Your task to perform on an android device: Clear the shopping cart on newegg.com. Add "energizer triple a" to the cart on newegg.com Image 0: 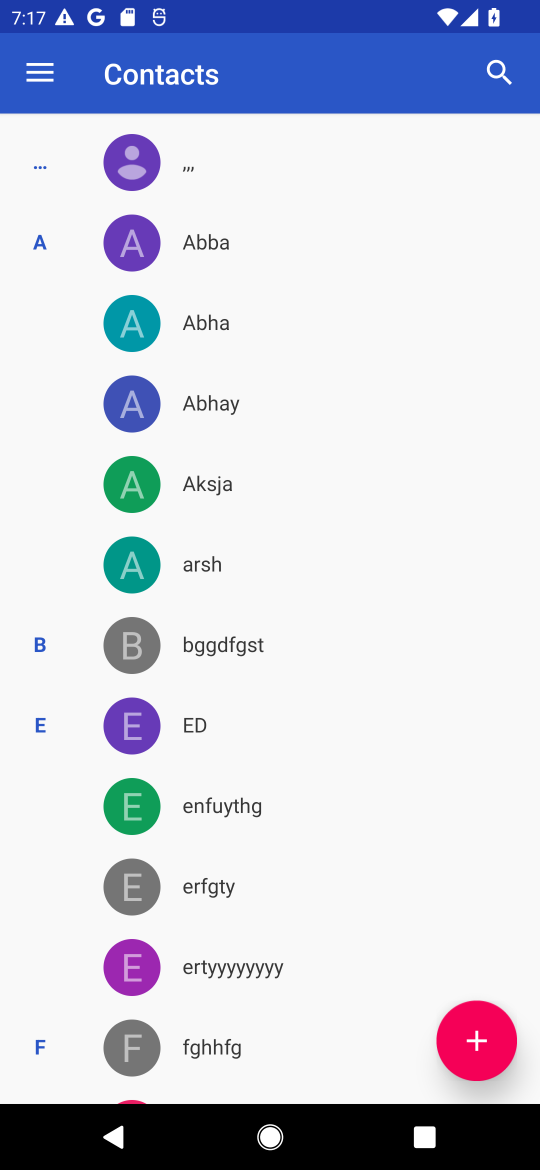
Step 0: press home button
Your task to perform on an android device: Clear the shopping cart on newegg.com. Add "energizer triple a" to the cart on newegg.com Image 1: 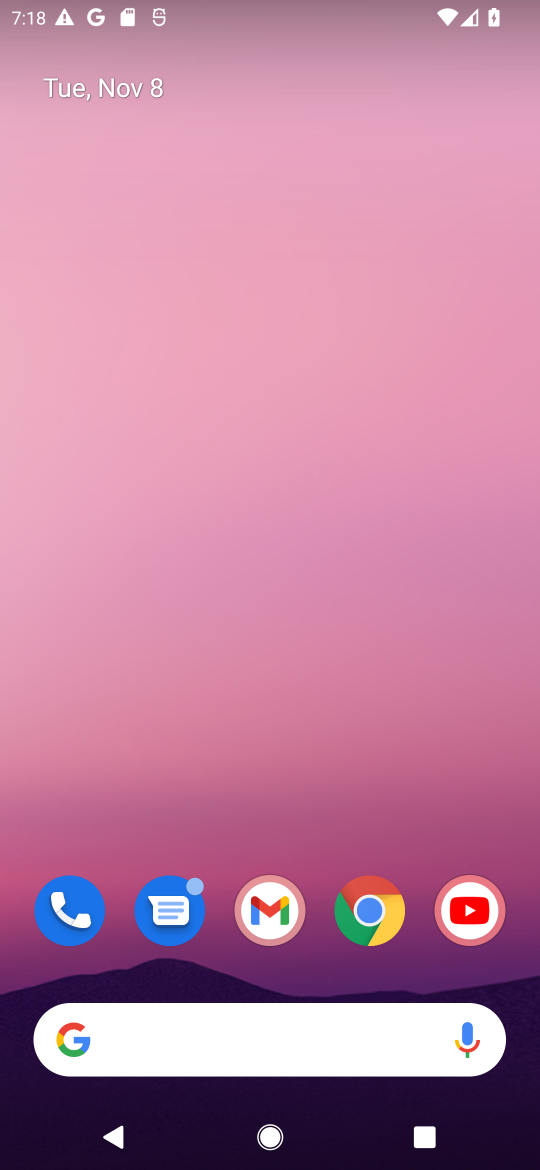
Step 1: click (370, 895)
Your task to perform on an android device: Clear the shopping cart on newegg.com. Add "energizer triple a" to the cart on newegg.com Image 2: 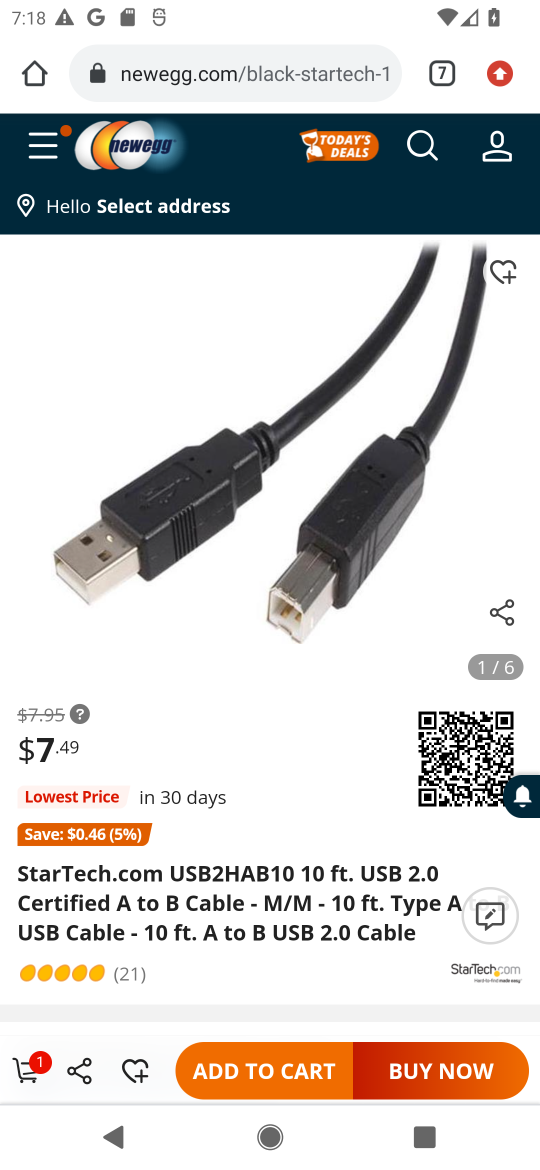
Step 2: click (428, 153)
Your task to perform on an android device: Clear the shopping cart on newegg.com. Add "energizer triple a" to the cart on newegg.com Image 3: 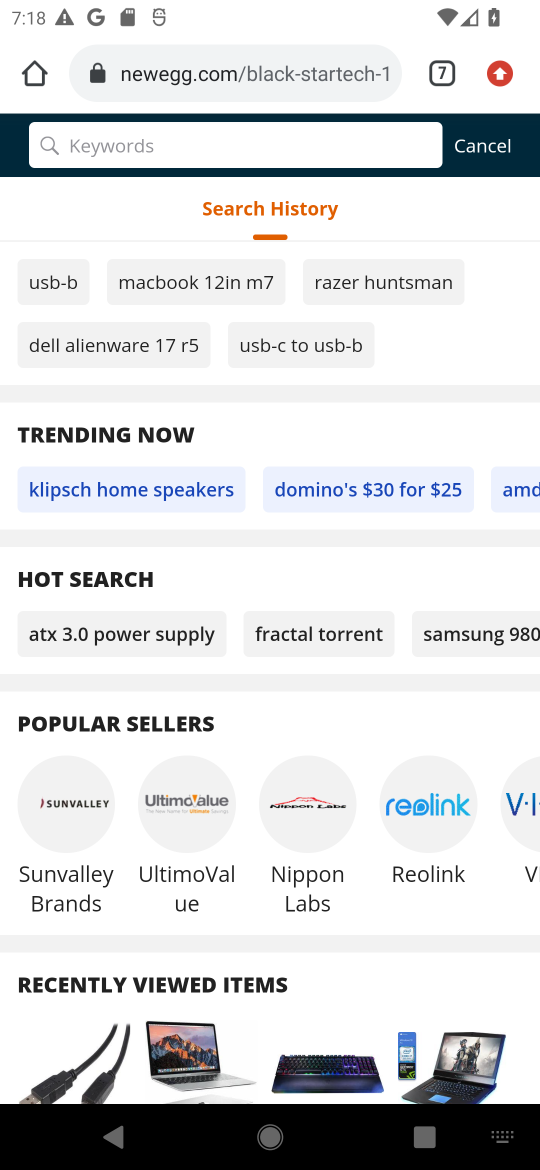
Step 3: type "energizer triple a"
Your task to perform on an android device: Clear the shopping cart on newegg.com. Add "energizer triple a" to the cart on newegg.com Image 4: 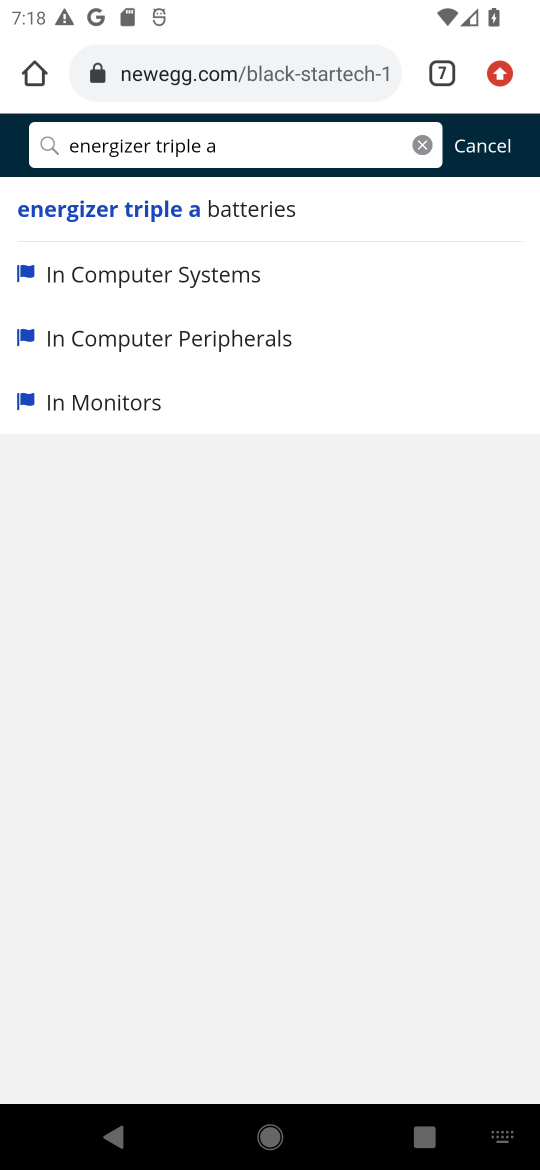
Step 4: click (267, 205)
Your task to perform on an android device: Clear the shopping cart on newegg.com. Add "energizer triple a" to the cart on newegg.com Image 5: 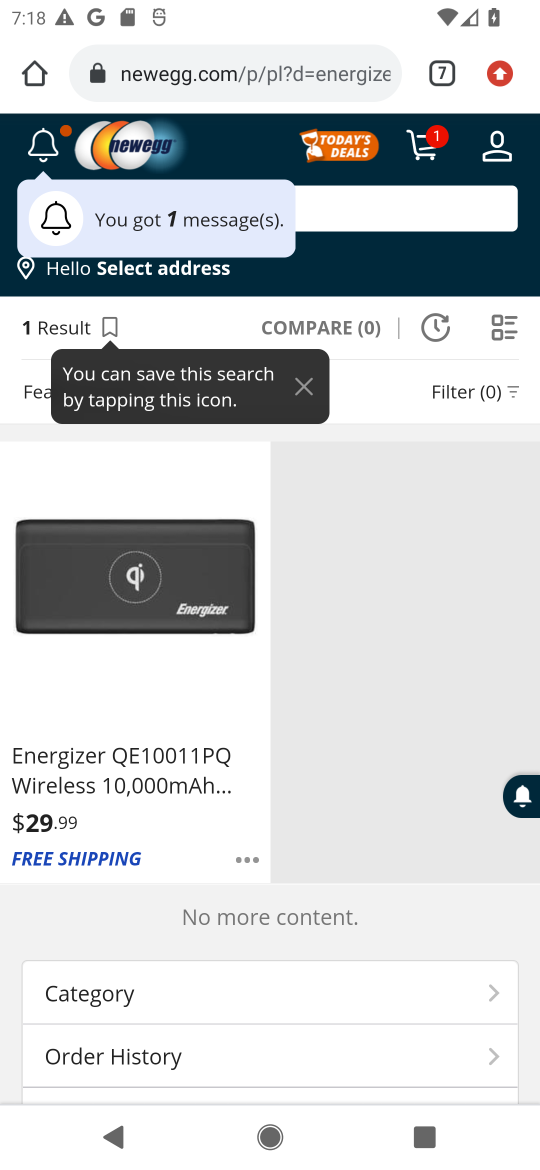
Step 5: click (93, 768)
Your task to perform on an android device: Clear the shopping cart on newegg.com. Add "energizer triple a" to the cart on newegg.com Image 6: 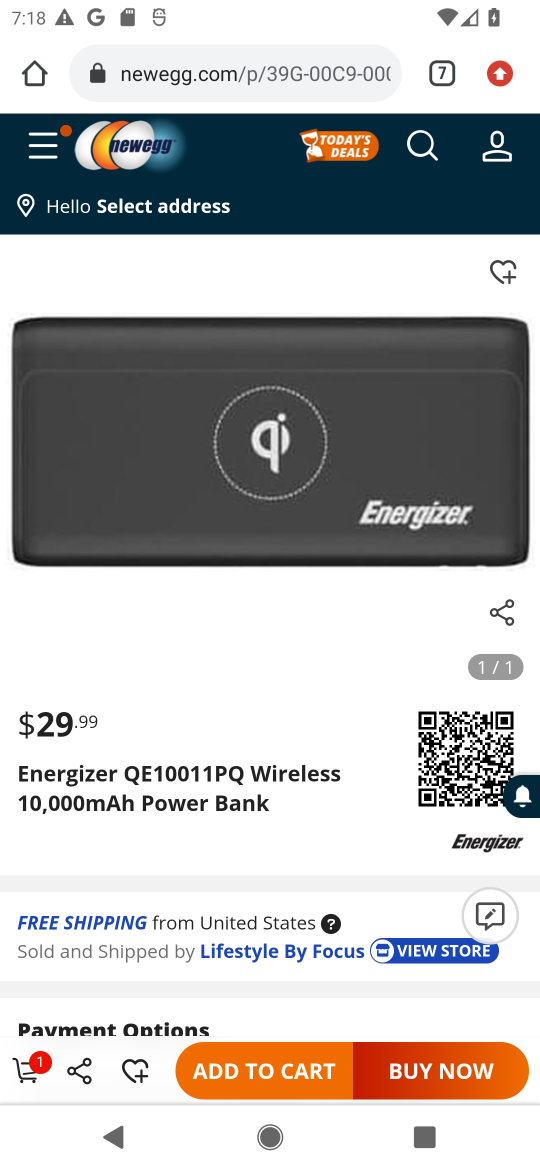
Step 6: click (242, 1077)
Your task to perform on an android device: Clear the shopping cart on newegg.com. Add "energizer triple a" to the cart on newegg.com Image 7: 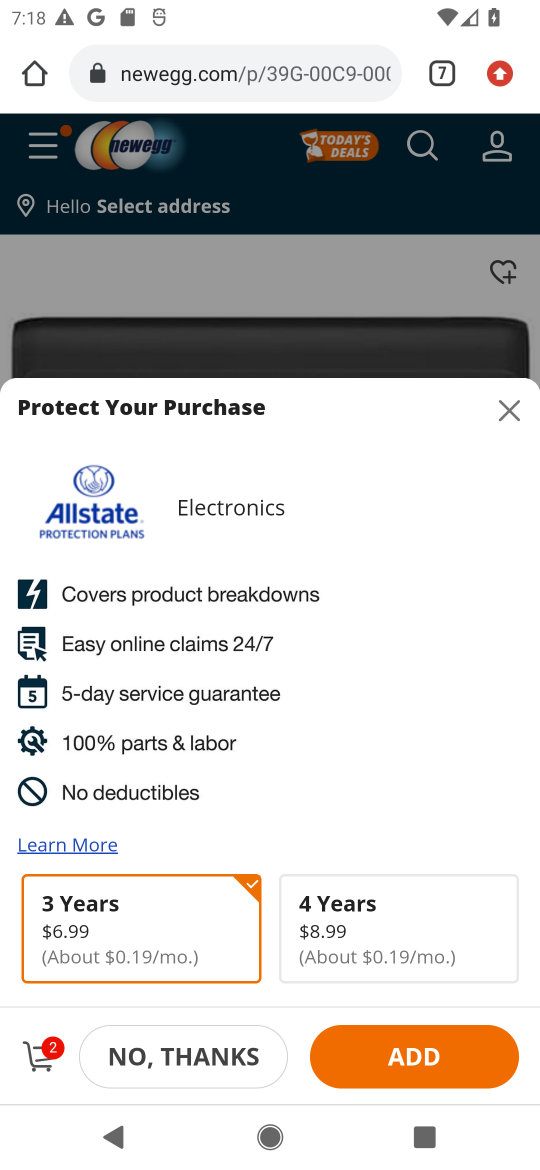
Step 7: task complete